Your task to perform on an android device: Open Wikipedia Image 0: 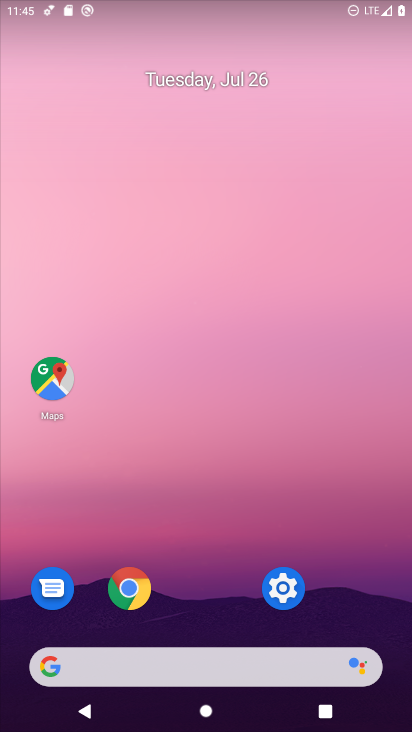
Step 0: drag from (243, 674) to (216, 175)
Your task to perform on an android device: Open Wikipedia Image 1: 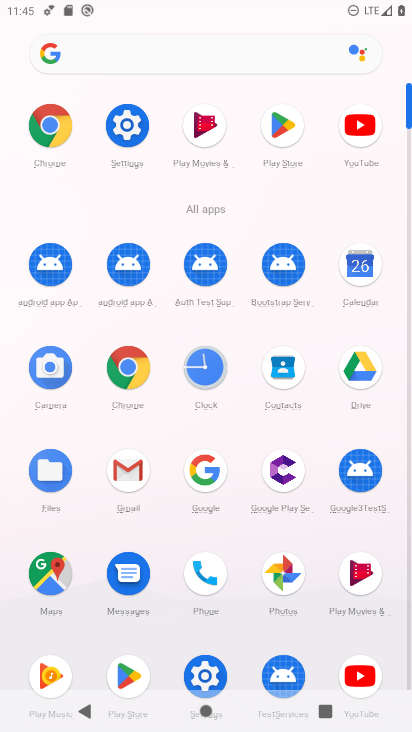
Step 1: click (54, 131)
Your task to perform on an android device: Open Wikipedia Image 2: 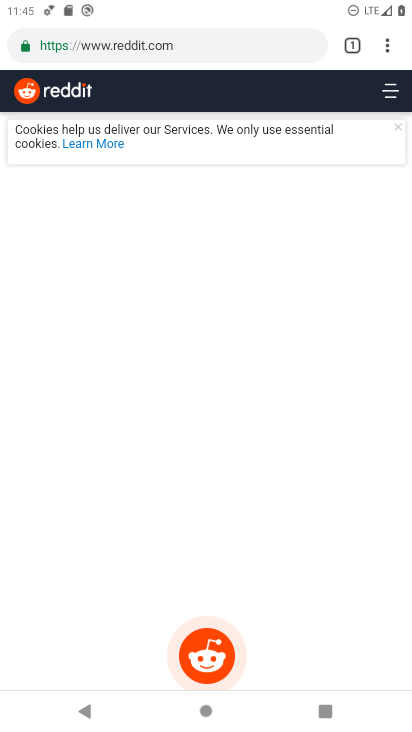
Step 2: click (384, 59)
Your task to perform on an android device: Open Wikipedia Image 3: 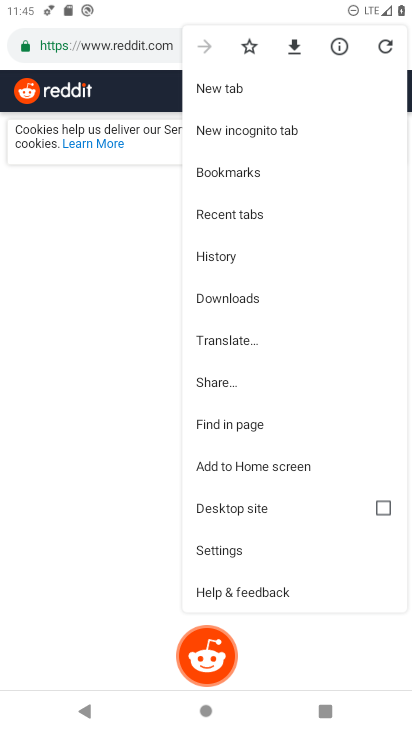
Step 3: click (231, 85)
Your task to perform on an android device: Open Wikipedia Image 4: 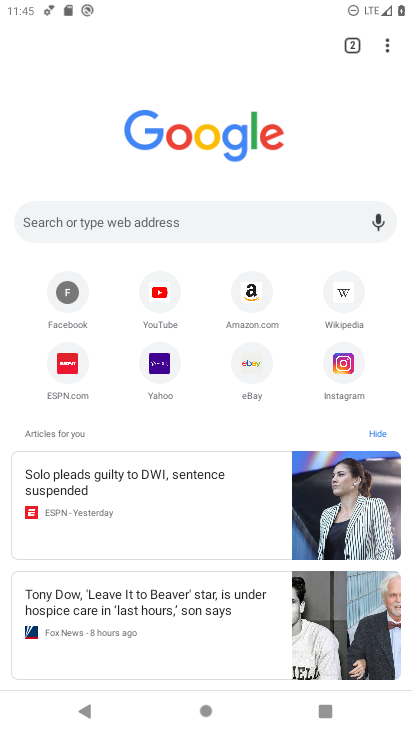
Step 4: click (331, 296)
Your task to perform on an android device: Open Wikipedia Image 5: 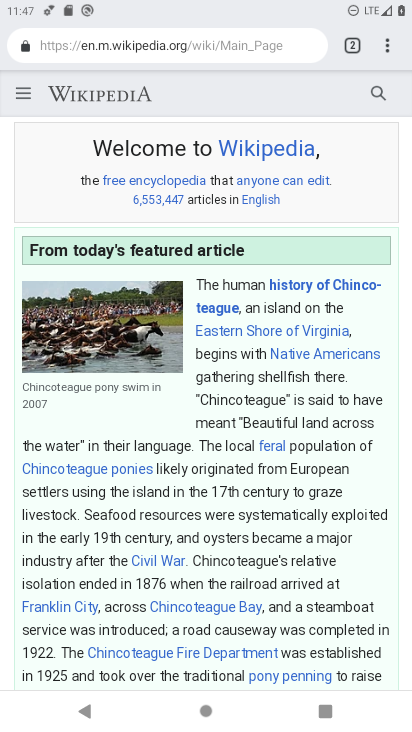
Step 5: task complete